Your task to perform on an android device: turn notification dots off Image 0: 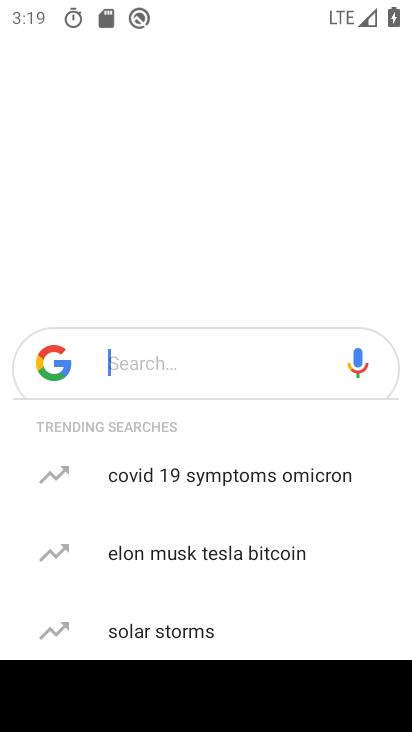
Step 0: press home button
Your task to perform on an android device: turn notification dots off Image 1: 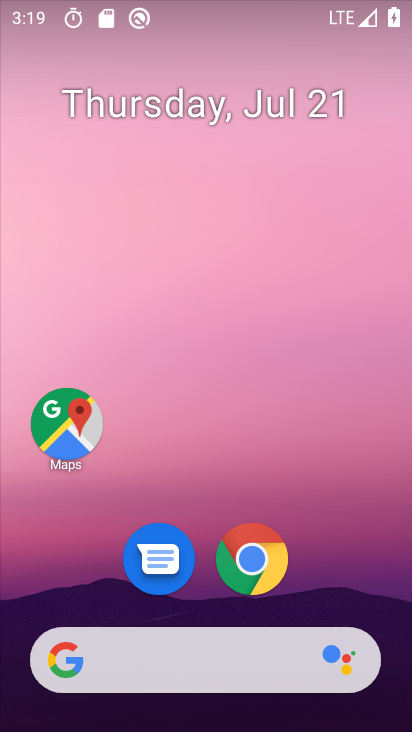
Step 1: drag from (382, 575) to (381, 148)
Your task to perform on an android device: turn notification dots off Image 2: 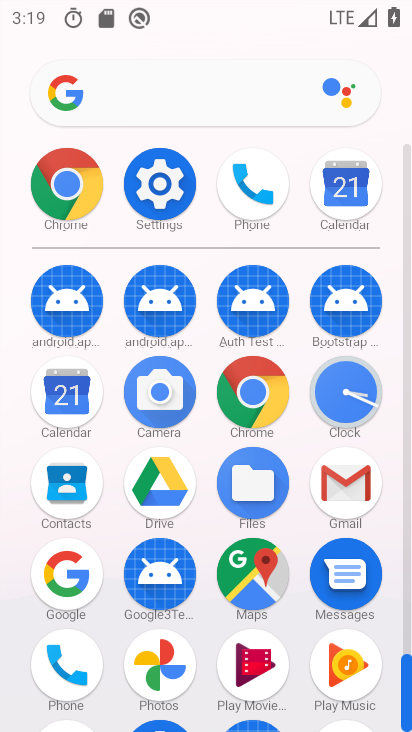
Step 2: click (168, 183)
Your task to perform on an android device: turn notification dots off Image 3: 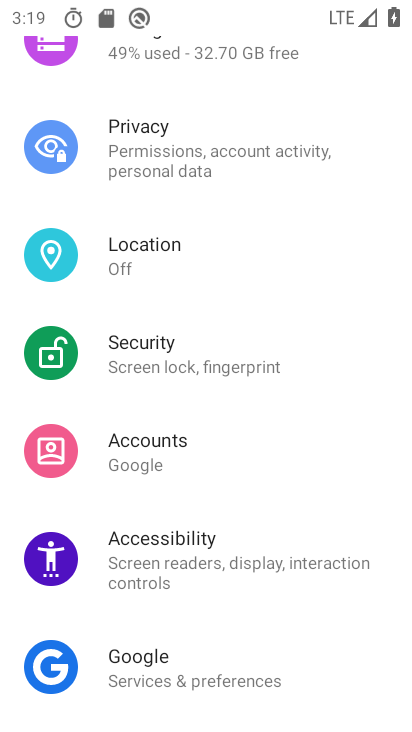
Step 3: drag from (357, 278) to (357, 338)
Your task to perform on an android device: turn notification dots off Image 4: 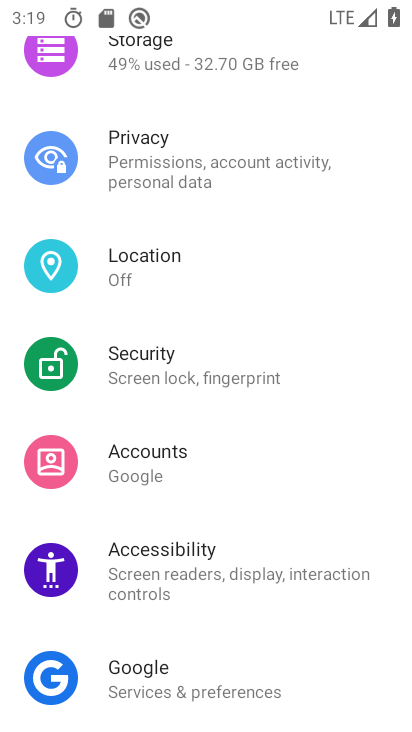
Step 4: drag from (361, 277) to (365, 358)
Your task to perform on an android device: turn notification dots off Image 5: 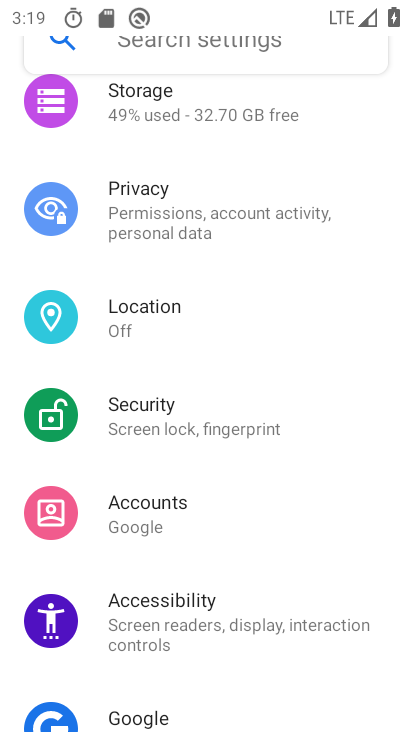
Step 5: drag from (365, 290) to (368, 371)
Your task to perform on an android device: turn notification dots off Image 6: 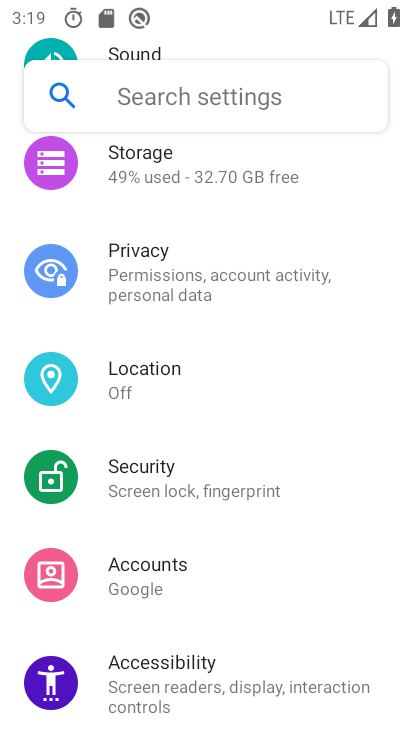
Step 6: drag from (368, 305) to (371, 367)
Your task to perform on an android device: turn notification dots off Image 7: 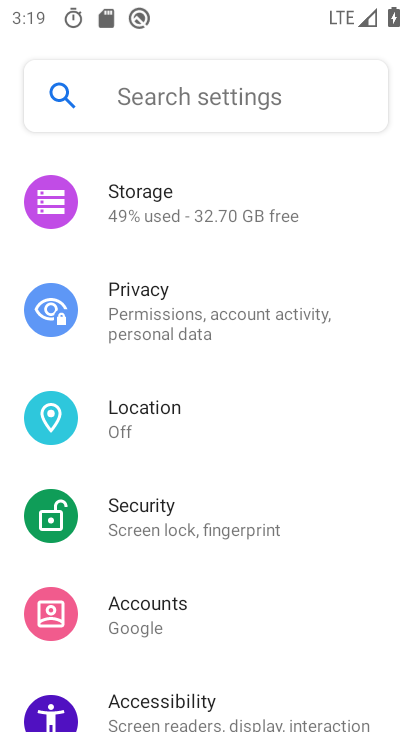
Step 7: drag from (371, 326) to (372, 394)
Your task to perform on an android device: turn notification dots off Image 8: 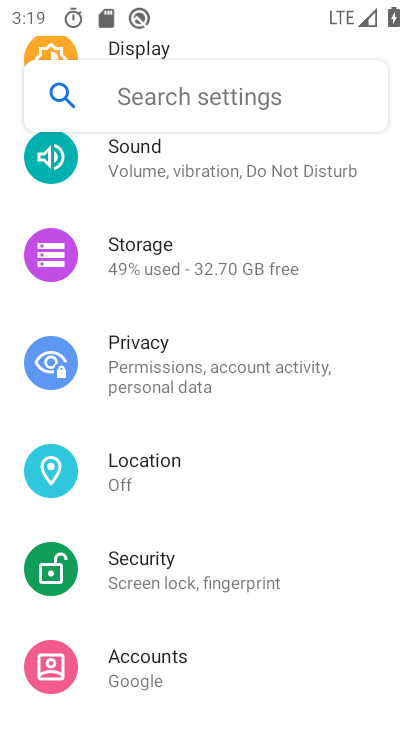
Step 8: drag from (365, 343) to (364, 394)
Your task to perform on an android device: turn notification dots off Image 9: 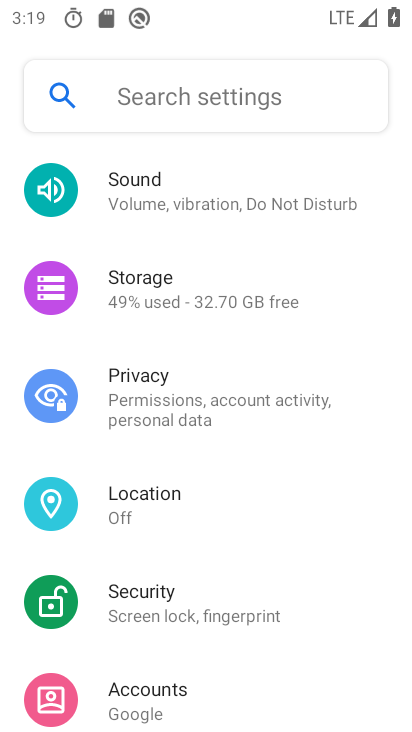
Step 9: drag from (360, 339) to (362, 383)
Your task to perform on an android device: turn notification dots off Image 10: 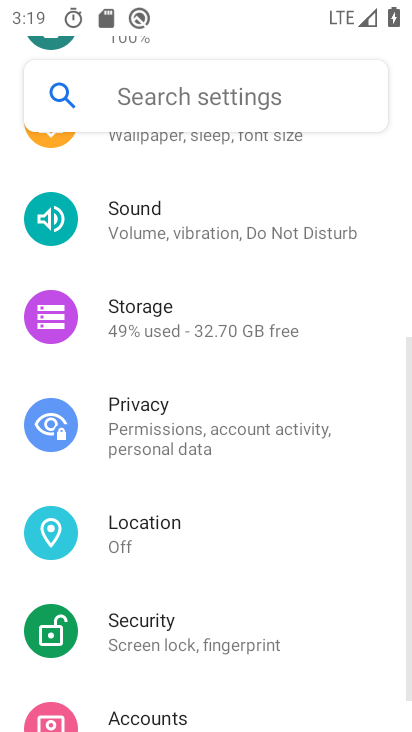
Step 10: drag from (362, 357) to (363, 402)
Your task to perform on an android device: turn notification dots off Image 11: 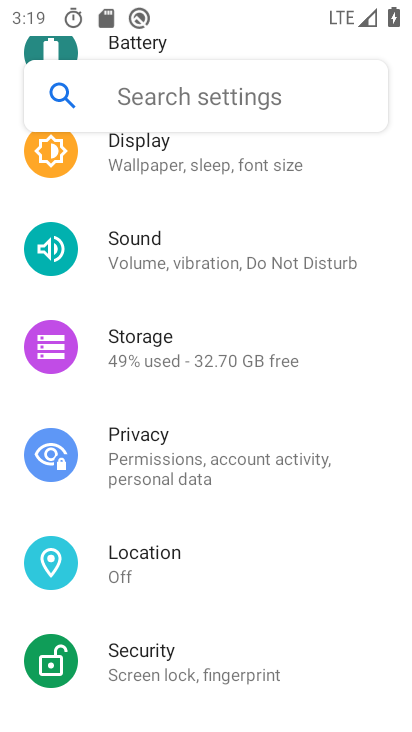
Step 11: drag from (361, 367) to (363, 412)
Your task to perform on an android device: turn notification dots off Image 12: 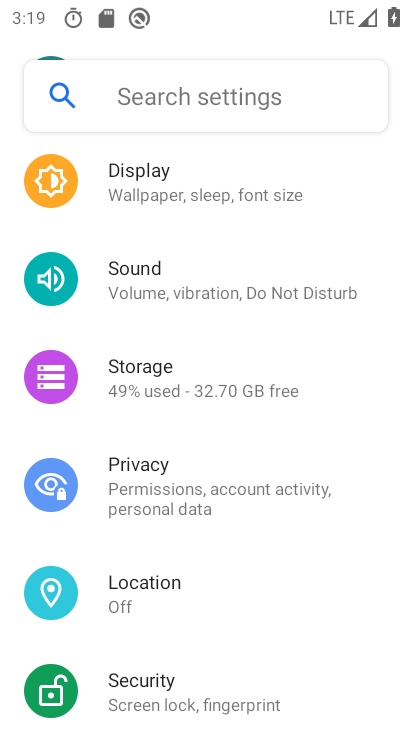
Step 12: drag from (356, 370) to (356, 432)
Your task to perform on an android device: turn notification dots off Image 13: 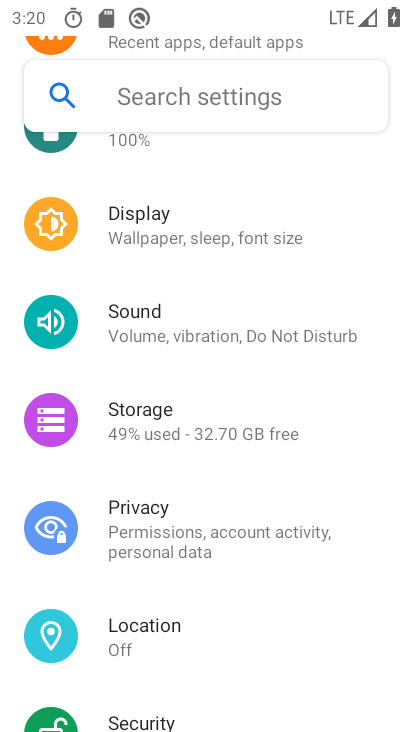
Step 13: drag from (357, 396) to (360, 444)
Your task to perform on an android device: turn notification dots off Image 14: 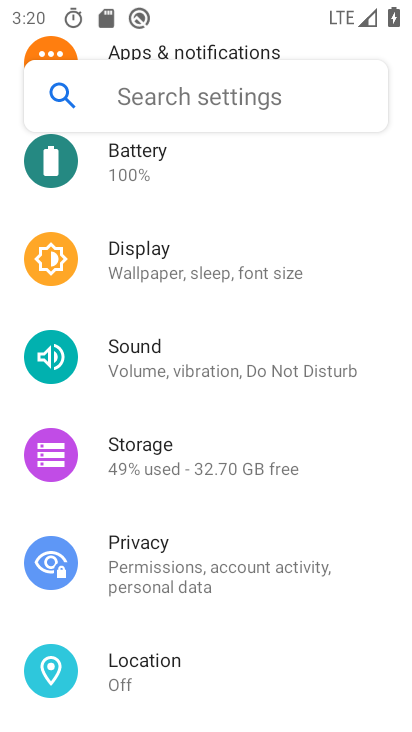
Step 14: drag from (364, 368) to (368, 436)
Your task to perform on an android device: turn notification dots off Image 15: 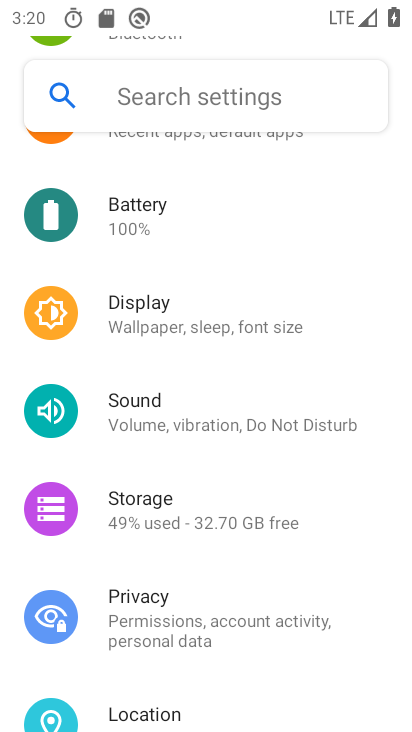
Step 15: drag from (373, 378) to (373, 453)
Your task to perform on an android device: turn notification dots off Image 16: 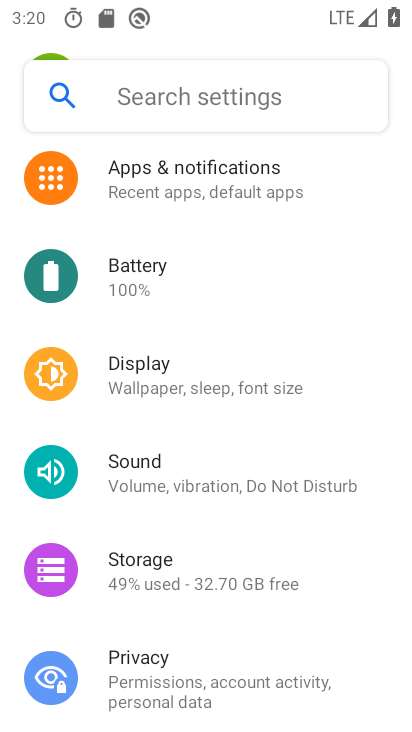
Step 16: drag from (365, 400) to (366, 457)
Your task to perform on an android device: turn notification dots off Image 17: 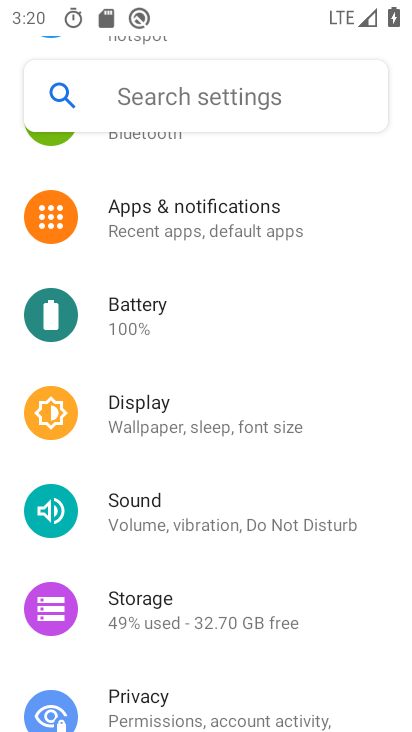
Step 17: drag from (366, 383) to (367, 455)
Your task to perform on an android device: turn notification dots off Image 18: 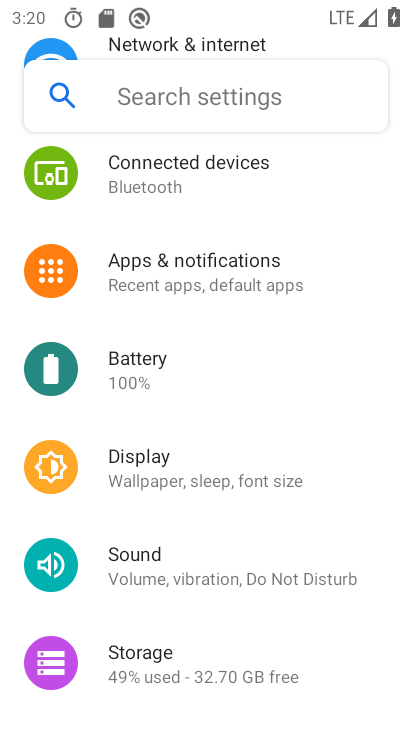
Step 18: drag from (367, 388) to (368, 462)
Your task to perform on an android device: turn notification dots off Image 19: 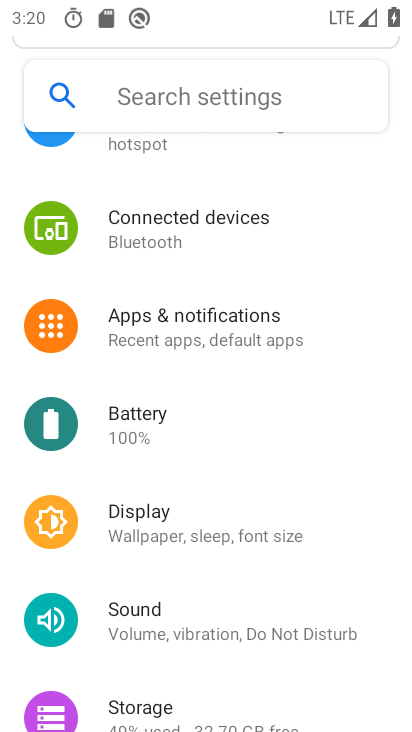
Step 19: drag from (364, 399) to (365, 530)
Your task to perform on an android device: turn notification dots off Image 20: 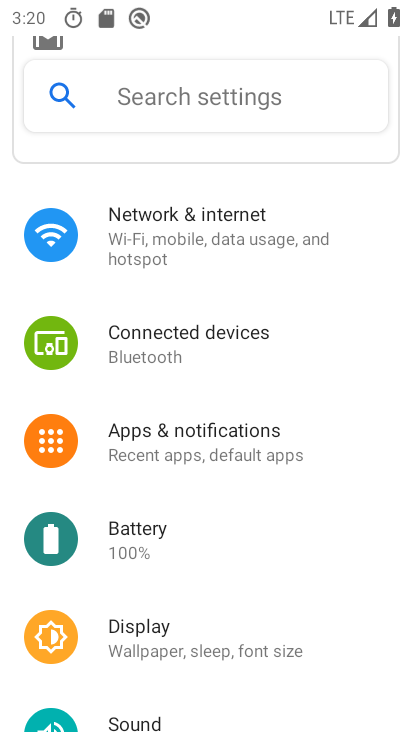
Step 20: drag from (346, 440) to (350, 519)
Your task to perform on an android device: turn notification dots off Image 21: 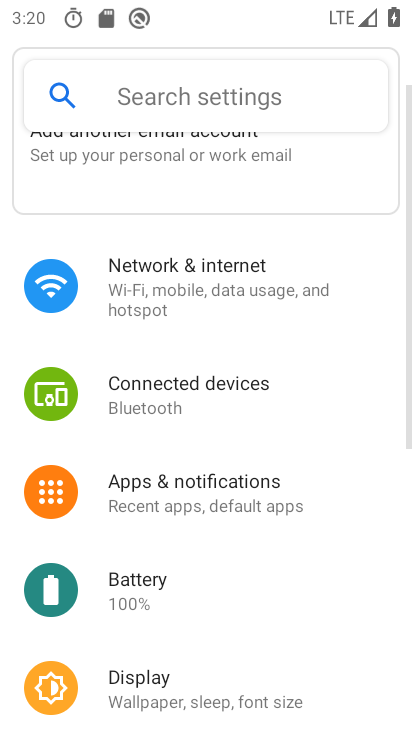
Step 21: click (329, 507)
Your task to perform on an android device: turn notification dots off Image 22: 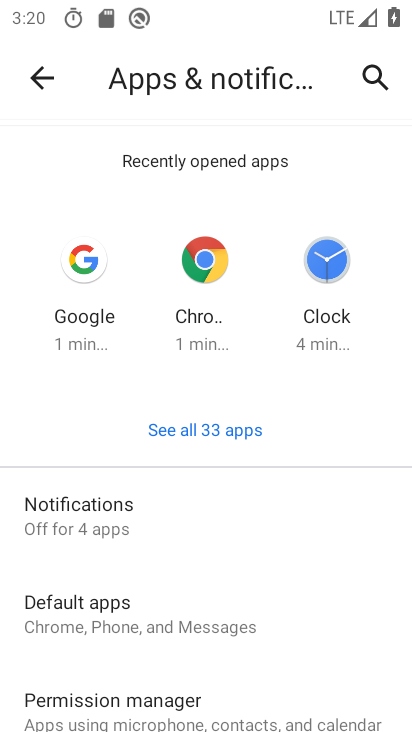
Step 22: click (233, 537)
Your task to perform on an android device: turn notification dots off Image 23: 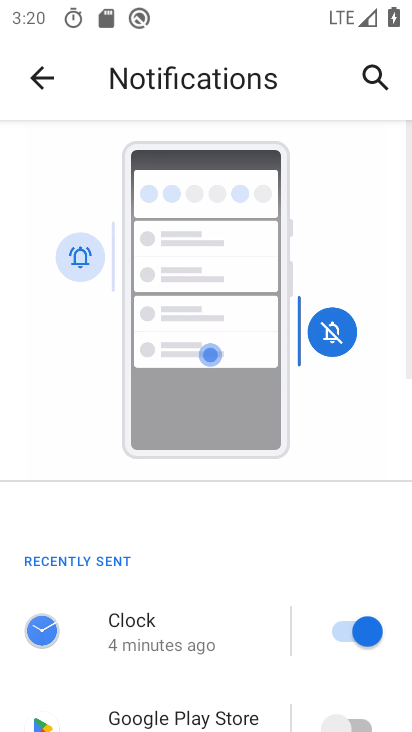
Step 23: drag from (272, 570) to (270, 488)
Your task to perform on an android device: turn notification dots off Image 24: 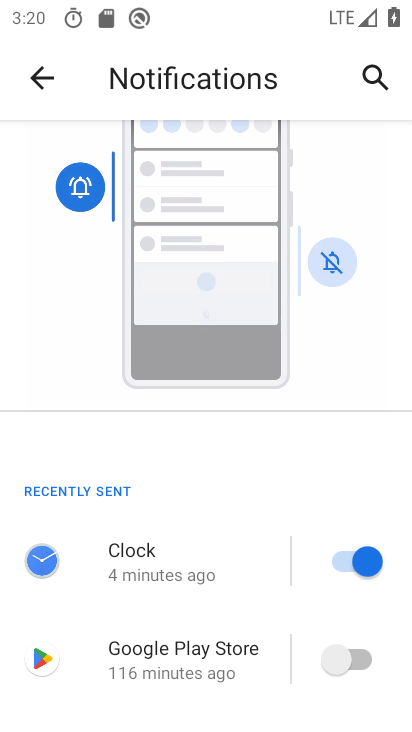
Step 24: drag from (238, 601) to (245, 518)
Your task to perform on an android device: turn notification dots off Image 25: 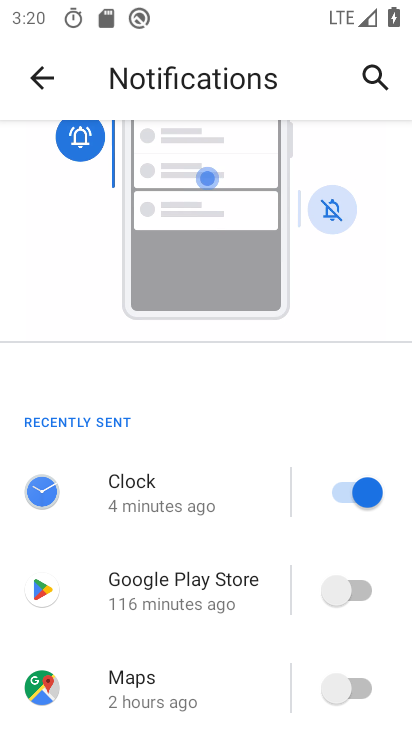
Step 25: drag from (245, 622) to (244, 536)
Your task to perform on an android device: turn notification dots off Image 26: 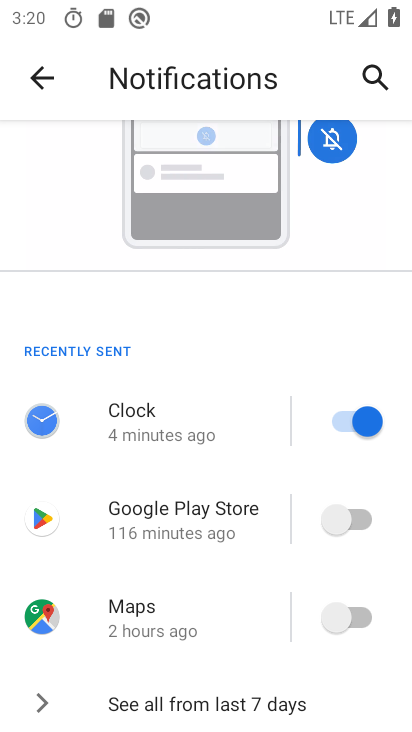
Step 26: drag from (242, 615) to (244, 505)
Your task to perform on an android device: turn notification dots off Image 27: 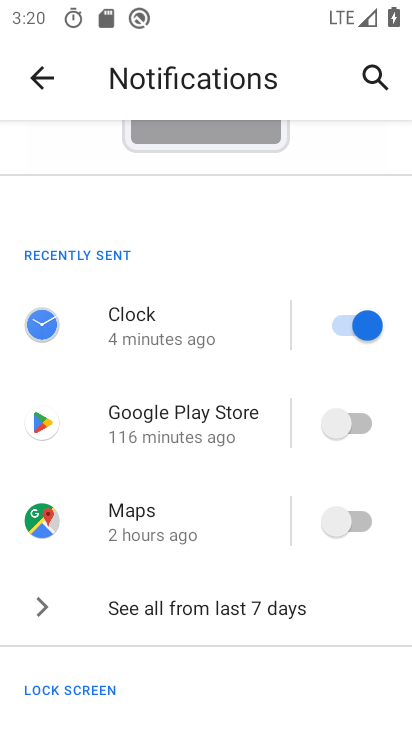
Step 27: drag from (245, 539) to (236, 450)
Your task to perform on an android device: turn notification dots off Image 28: 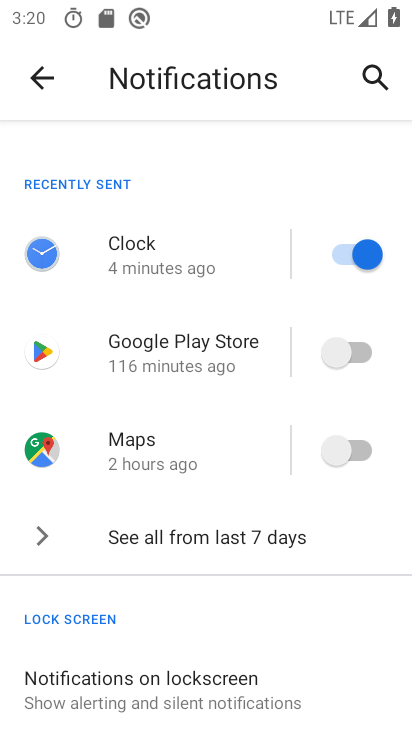
Step 28: drag from (234, 563) to (228, 462)
Your task to perform on an android device: turn notification dots off Image 29: 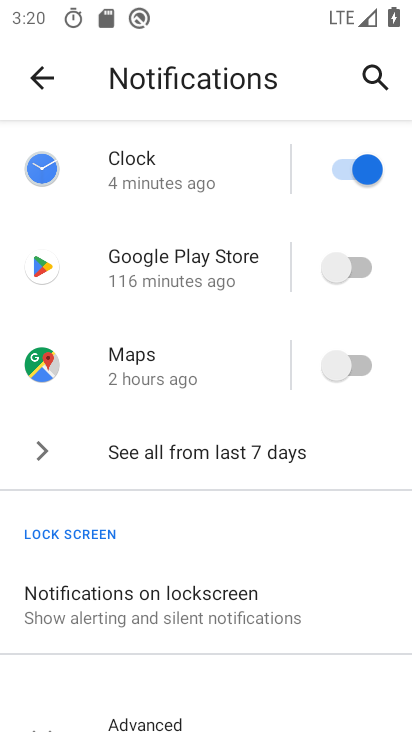
Step 29: drag from (239, 556) to (237, 417)
Your task to perform on an android device: turn notification dots off Image 30: 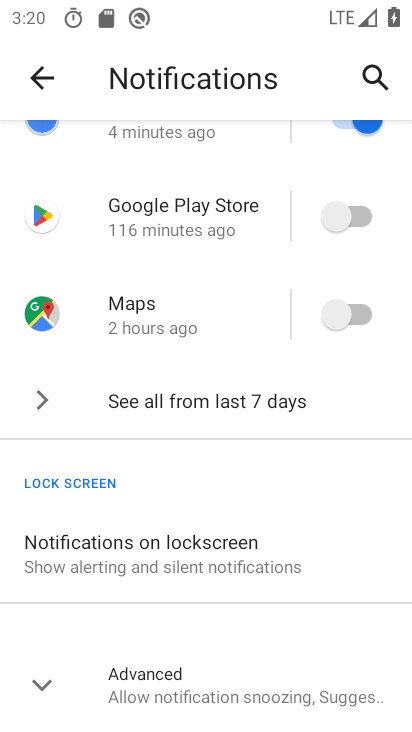
Step 30: click (257, 662)
Your task to perform on an android device: turn notification dots off Image 31: 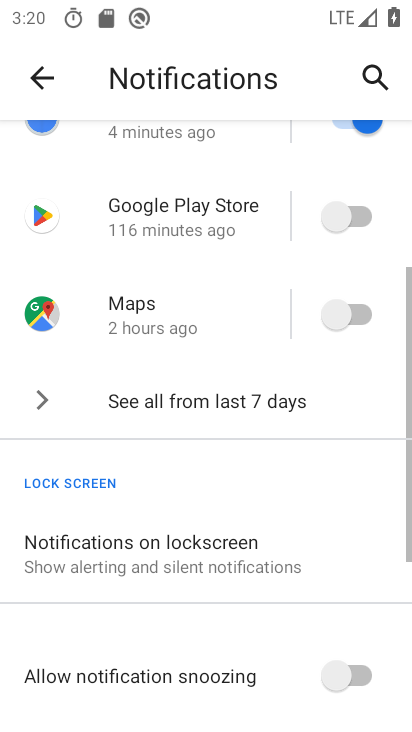
Step 31: drag from (287, 632) to (289, 546)
Your task to perform on an android device: turn notification dots off Image 32: 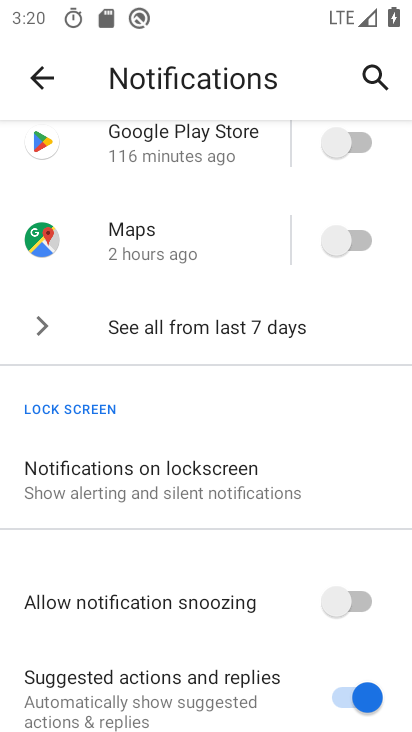
Step 32: drag from (289, 624) to (281, 502)
Your task to perform on an android device: turn notification dots off Image 33: 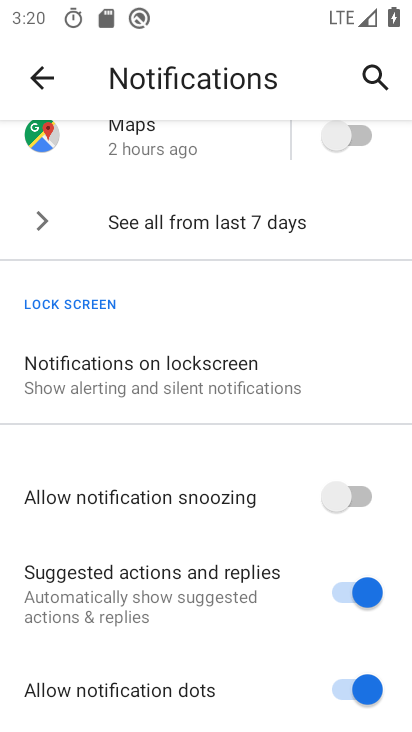
Step 33: drag from (280, 624) to (283, 480)
Your task to perform on an android device: turn notification dots off Image 34: 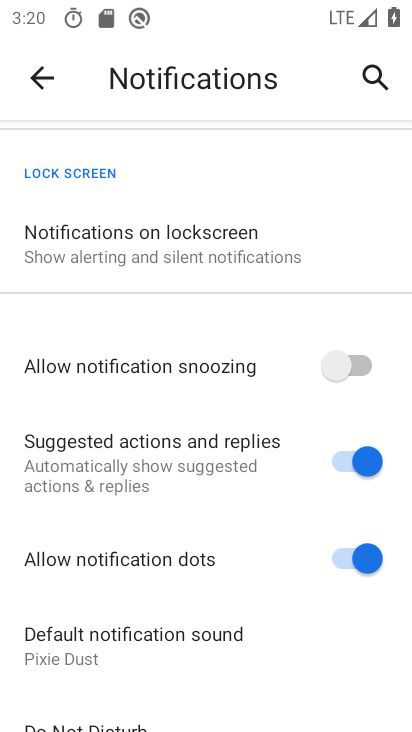
Step 34: click (343, 563)
Your task to perform on an android device: turn notification dots off Image 35: 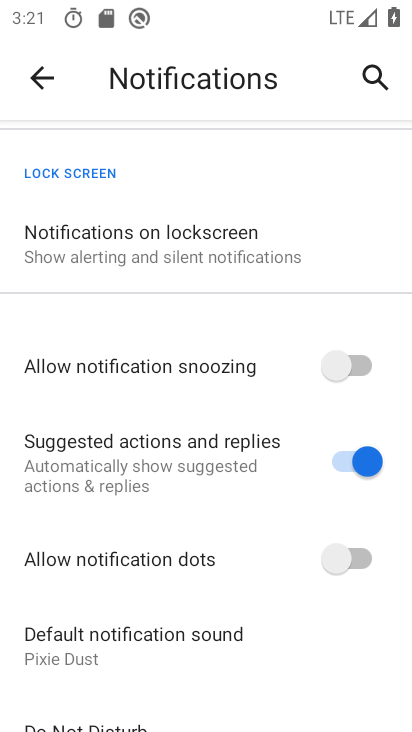
Step 35: task complete